Your task to perform on an android device: turn off wifi Image 0: 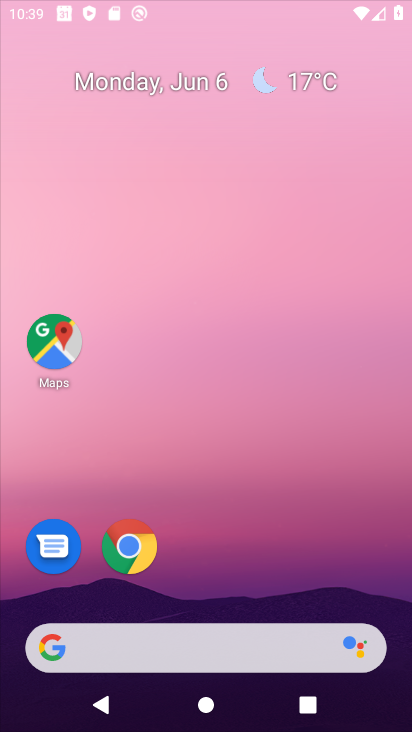
Step 0: drag from (303, 514) to (344, 55)
Your task to perform on an android device: turn off wifi Image 1: 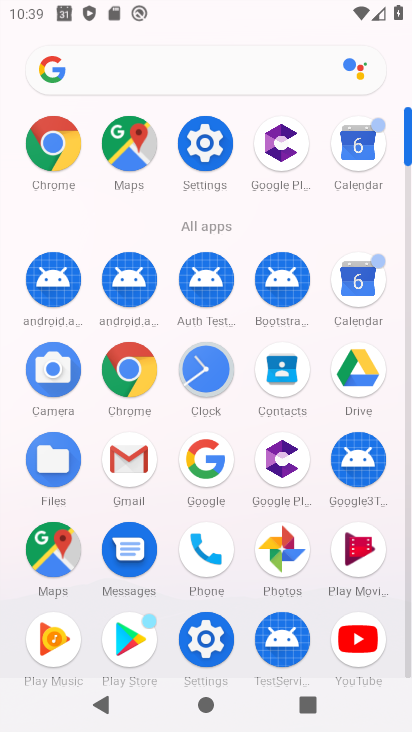
Step 1: click (207, 136)
Your task to perform on an android device: turn off wifi Image 2: 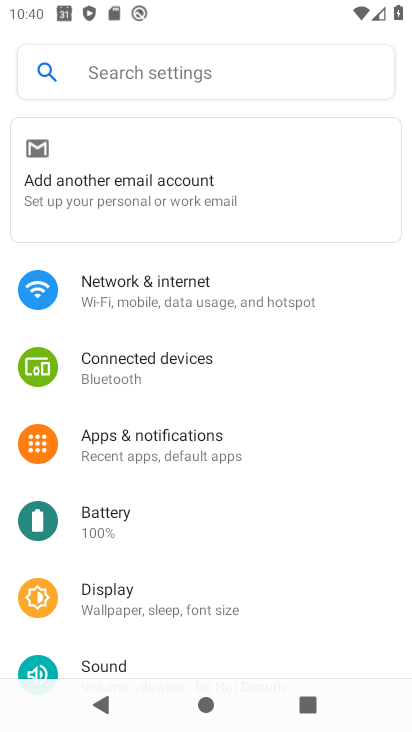
Step 2: click (213, 300)
Your task to perform on an android device: turn off wifi Image 3: 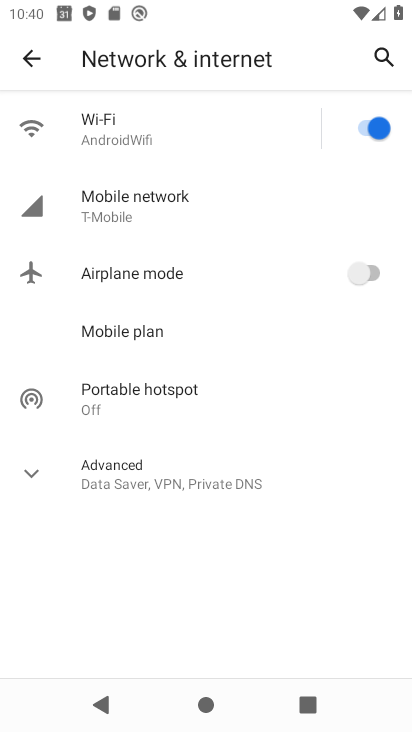
Step 3: click (379, 131)
Your task to perform on an android device: turn off wifi Image 4: 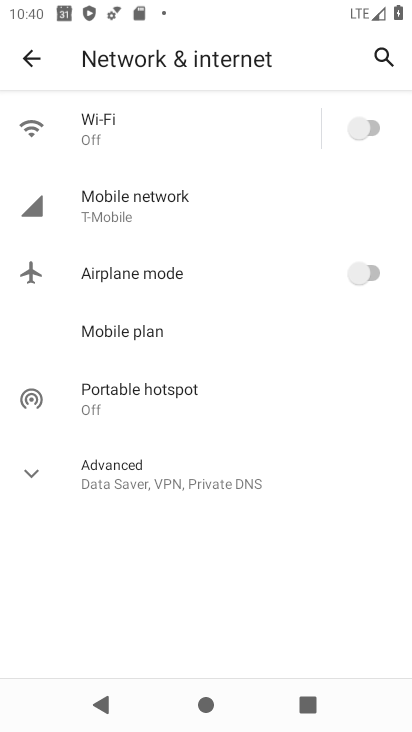
Step 4: task complete